Your task to perform on an android device: set the stopwatch Image 0: 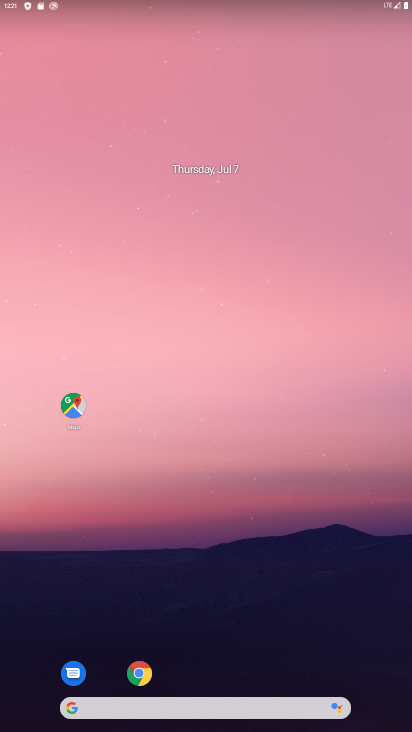
Step 0: drag from (203, 596) to (249, 171)
Your task to perform on an android device: set the stopwatch Image 1: 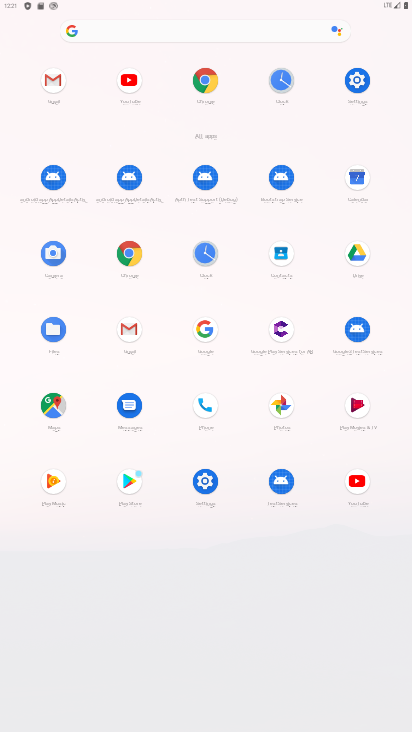
Step 1: click (221, 251)
Your task to perform on an android device: set the stopwatch Image 2: 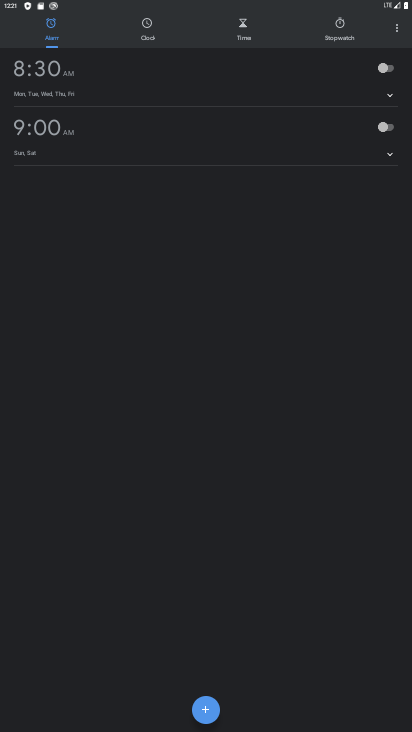
Step 2: click (341, 30)
Your task to perform on an android device: set the stopwatch Image 3: 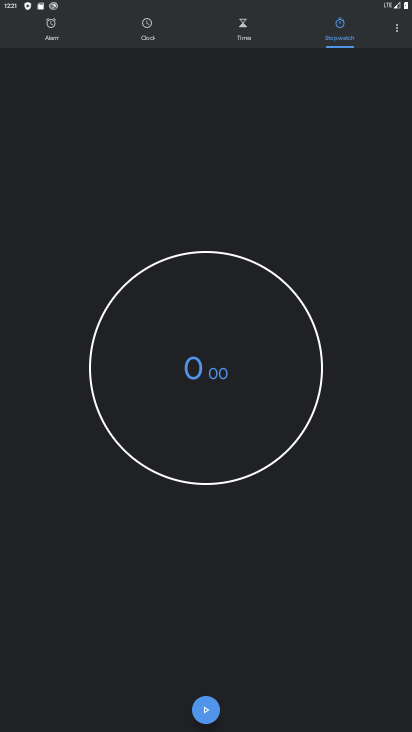
Step 3: click (200, 369)
Your task to perform on an android device: set the stopwatch Image 4: 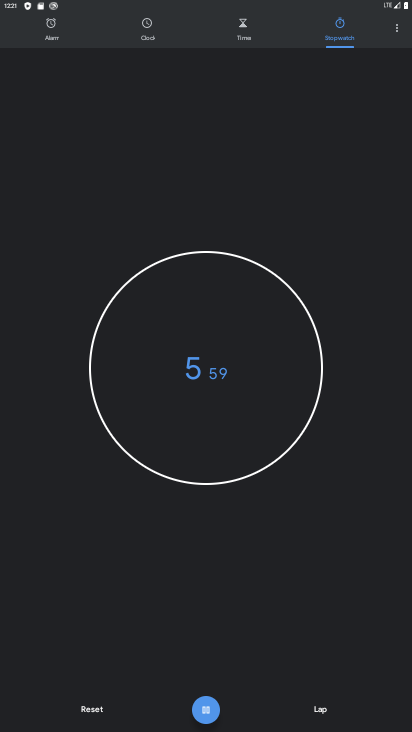
Step 4: click (206, 713)
Your task to perform on an android device: set the stopwatch Image 5: 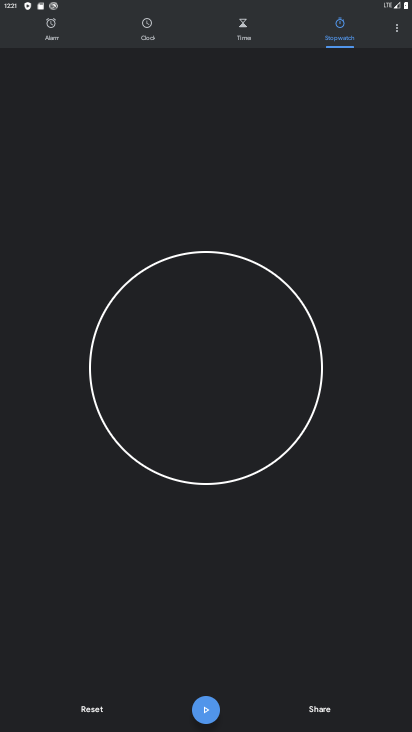
Step 5: task complete